Your task to perform on an android device: see sites visited before in the chrome app Image 0: 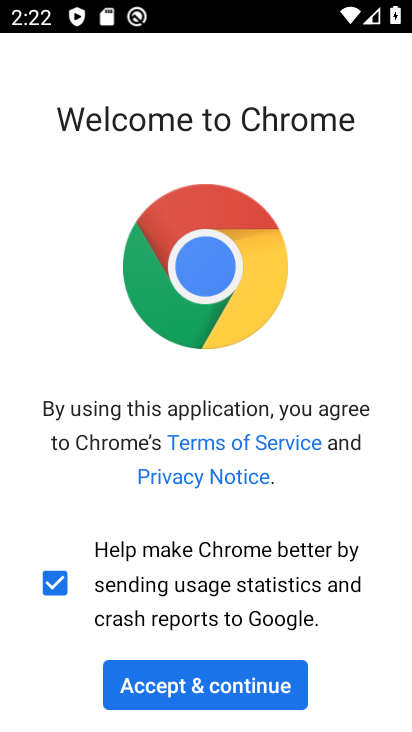
Step 0: click (131, 695)
Your task to perform on an android device: see sites visited before in the chrome app Image 1: 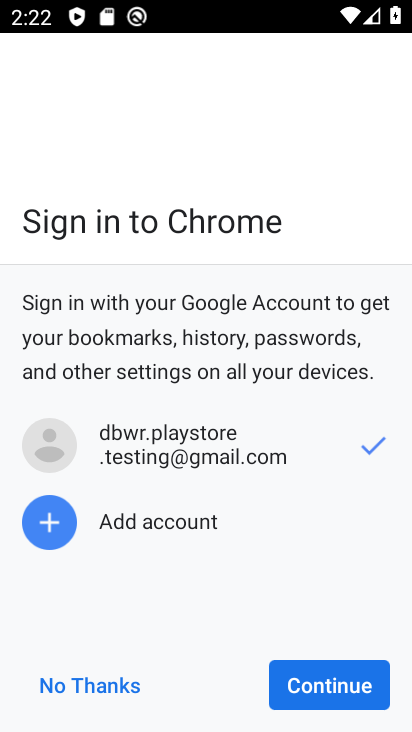
Step 1: click (306, 680)
Your task to perform on an android device: see sites visited before in the chrome app Image 2: 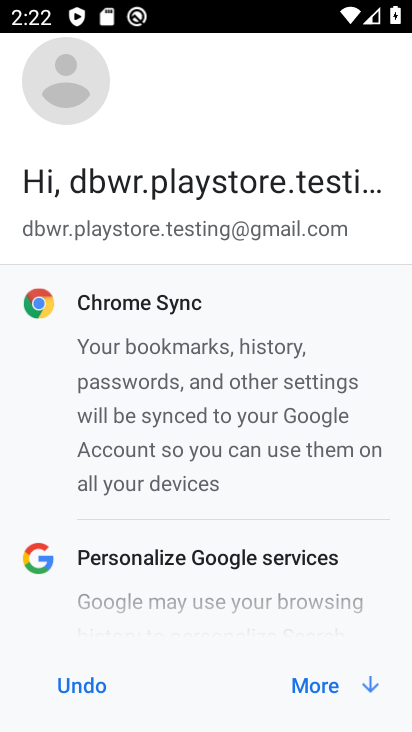
Step 2: click (306, 680)
Your task to perform on an android device: see sites visited before in the chrome app Image 3: 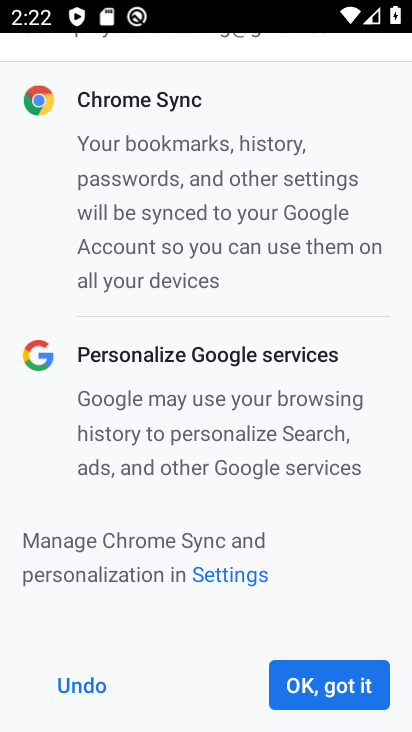
Step 3: click (306, 680)
Your task to perform on an android device: see sites visited before in the chrome app Image 4: 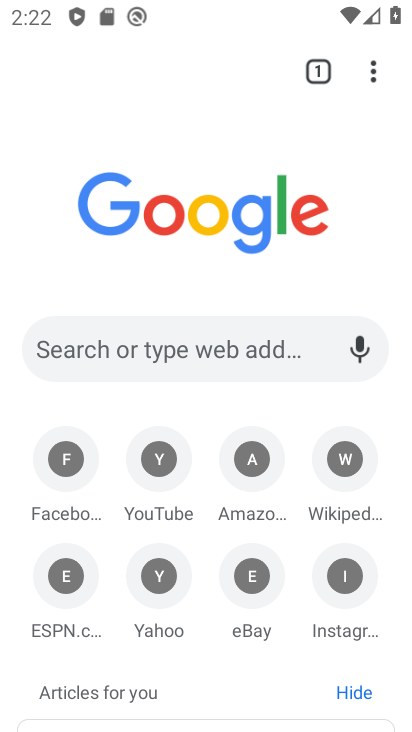
Step 4: click (370, 72)
Your task to perform on an android device: see sites visited before in the chrome app Image 5: 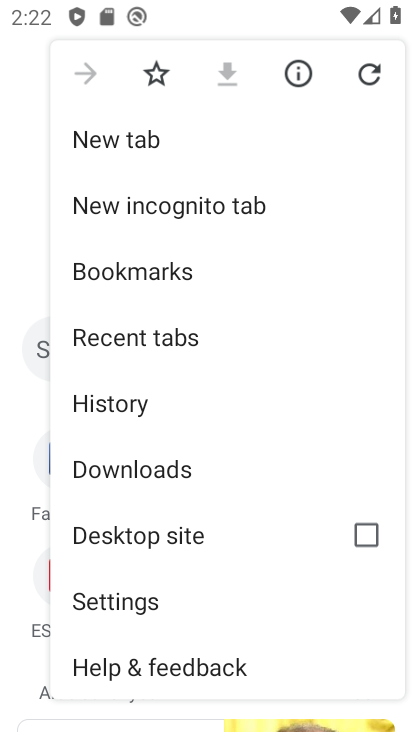
Step 5: click (118, 405)
Your task to perform on an android device: see sites visited before in the chrome app Image 6: 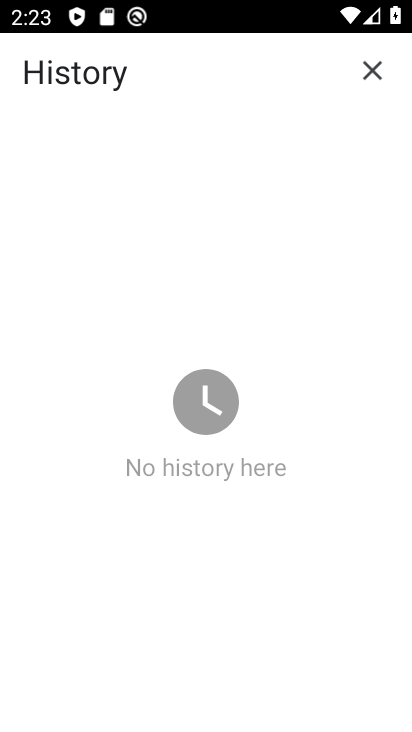
Step 6: task complete